Your task to perform on an android device: What is the recent news? Image 0: 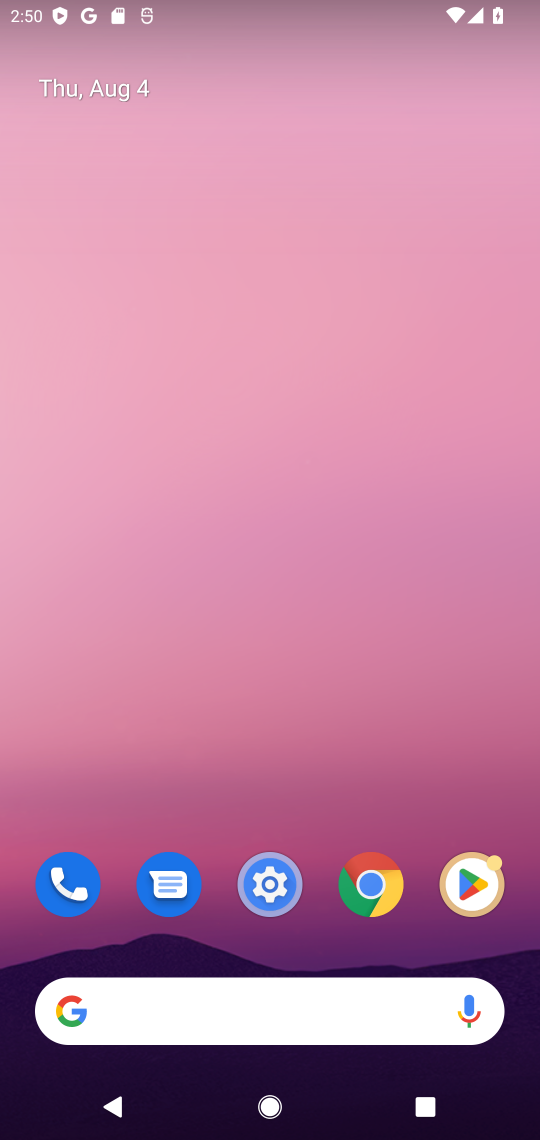
Step 0: drag from (276, 914) to (430, 148)
Your task to perform on an android device: What is the recent news? Image 1: 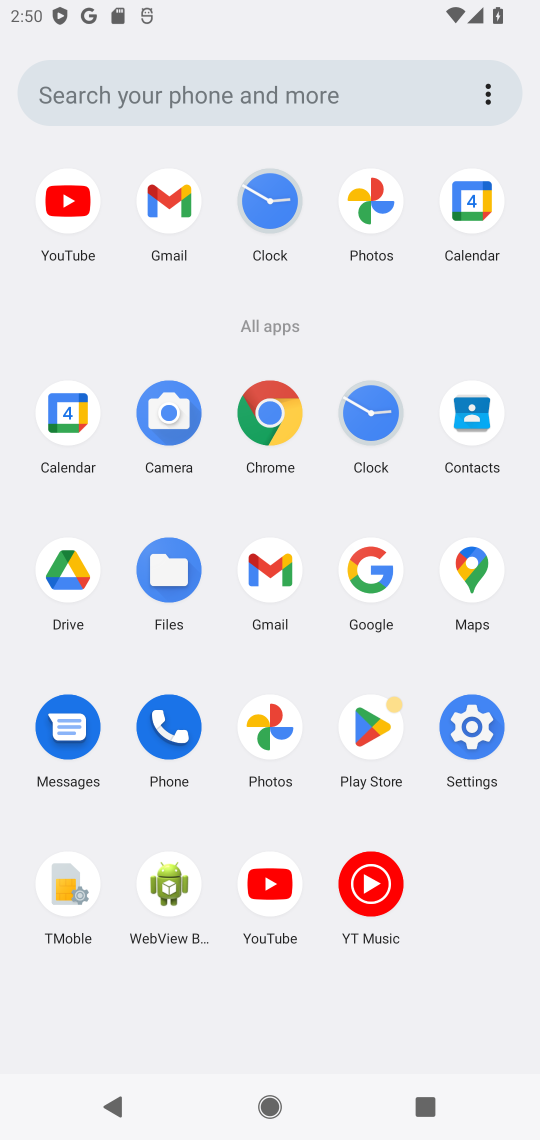
Step 1: click (206, 94)
Your task to perform on an android device: What is the recent news? Image 2: 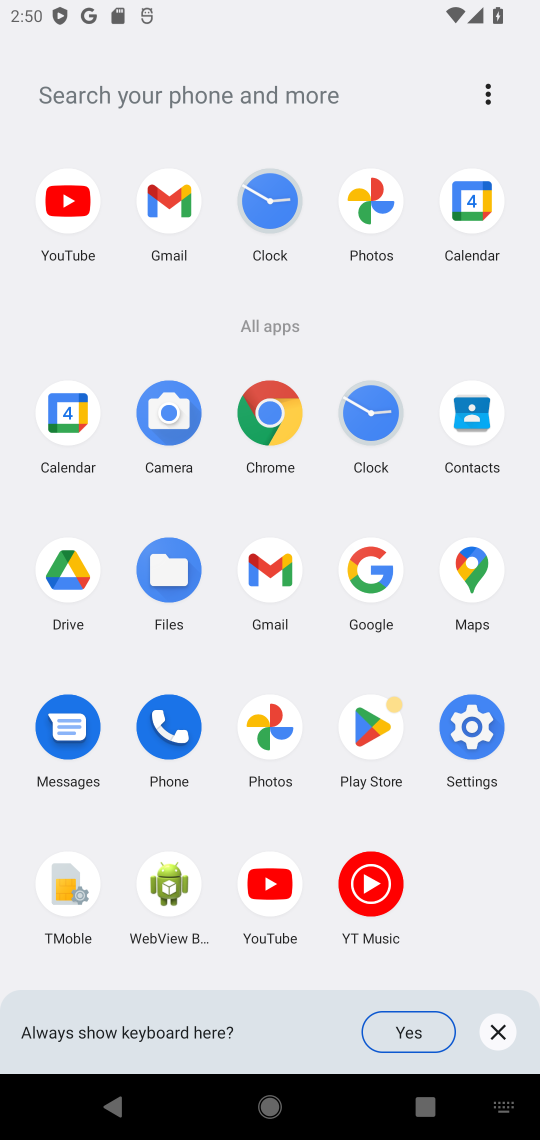
Step 2: type "recent news?"
Your task to perform on an android device: What is the recent news? Image 3: 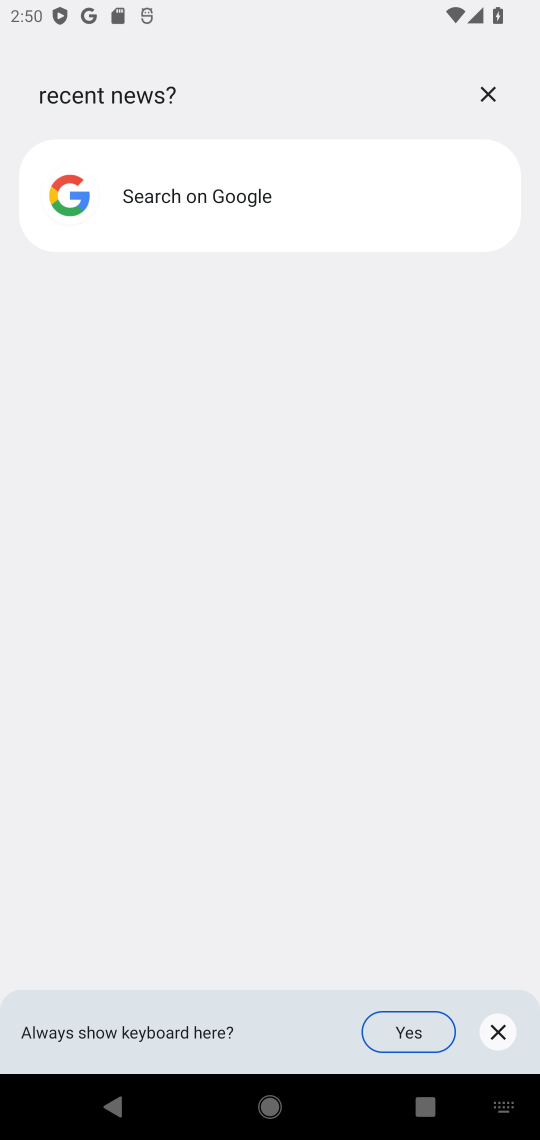
Step 3: drag from (285, 769) to (439, 430)
Your task to perform on an android device: What is the recent news? Image 4: 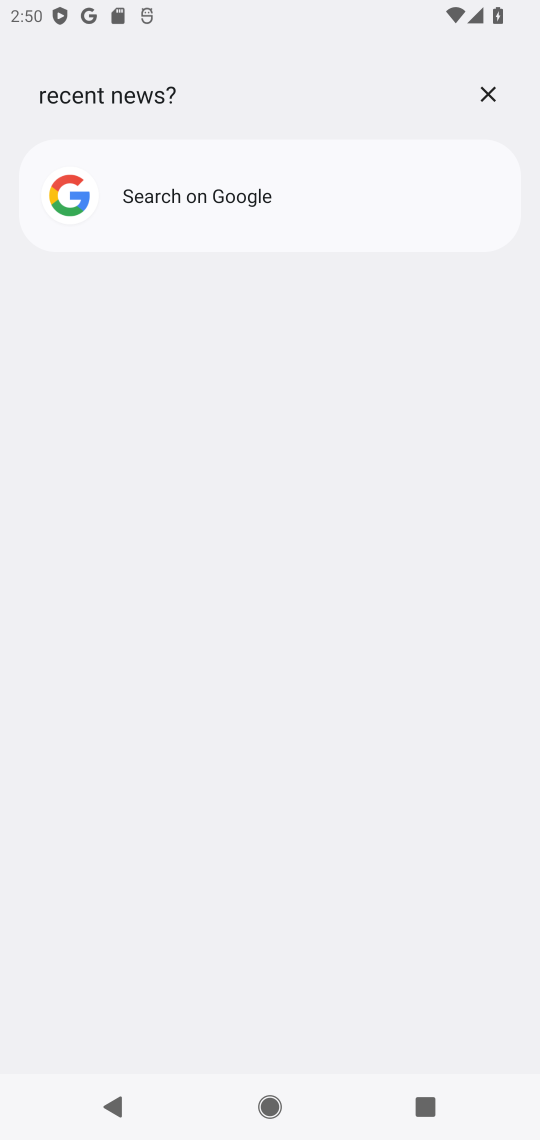
Step 4: click (84, 142)
Your task to perform on an android device: What is the recent news? Image 5: 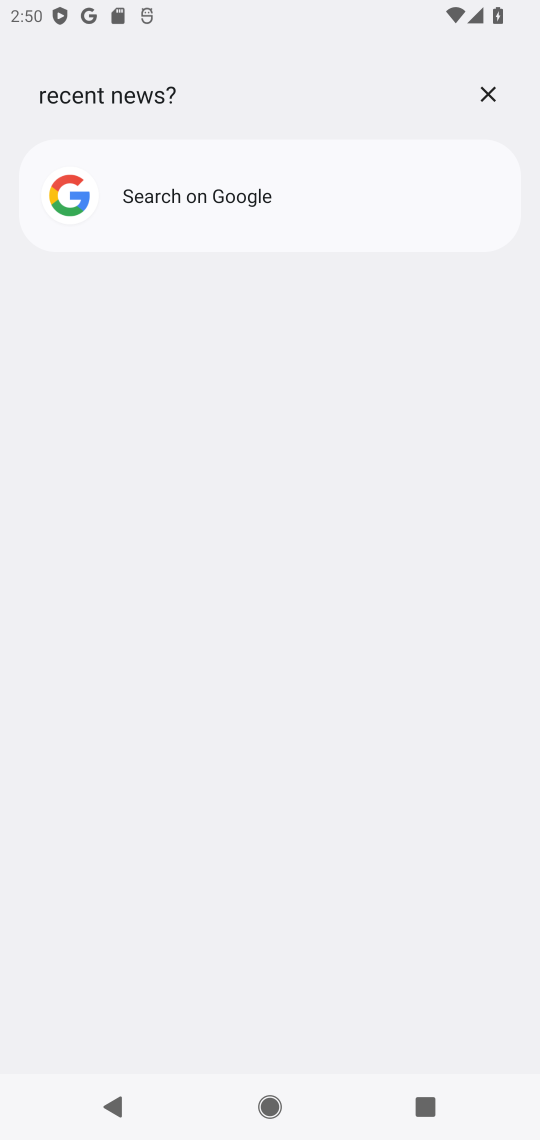
Step 5: click (119, 155)
Your task to perform on an android device: What is the recent news? Image 6: 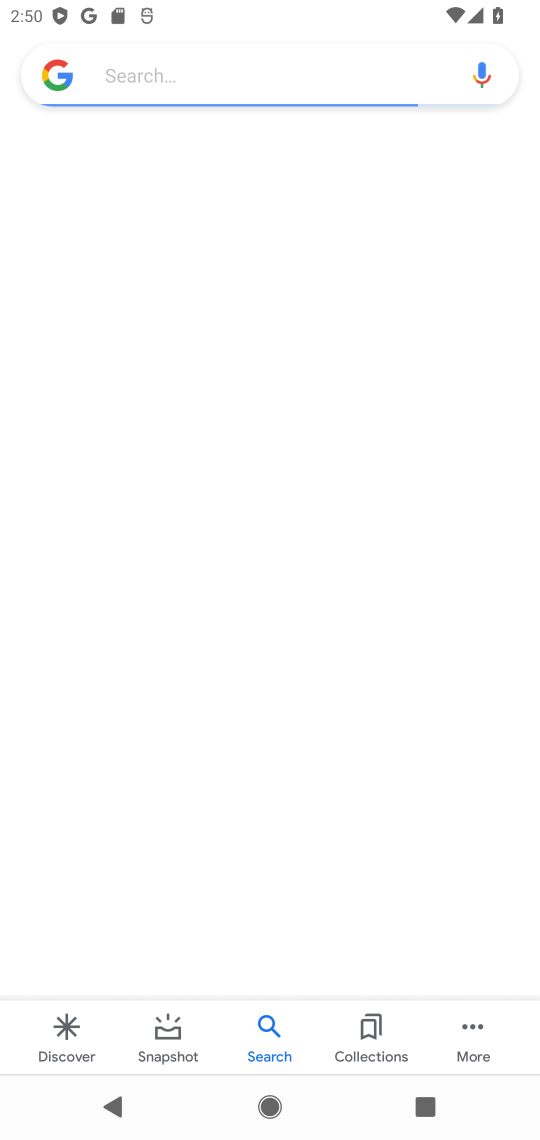
Step 6: task complete